Your task to perform on an android device: turn off notifications settings in the gmail app Image 0: 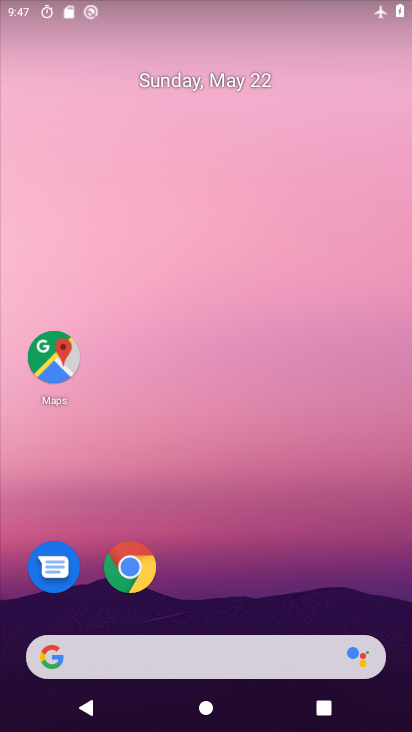
Step 0: drag from (199, 614) to (158, 72)
Your task to perform on an android device: turn off notifications settings in the gmail app Image 1: 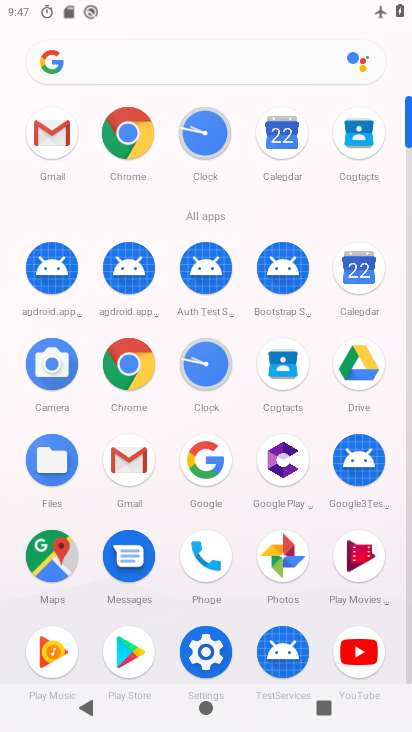
Step 1: click (129, 451)
Your task to perform on an android device: turn off notifications settings in the gmail app Image 2: 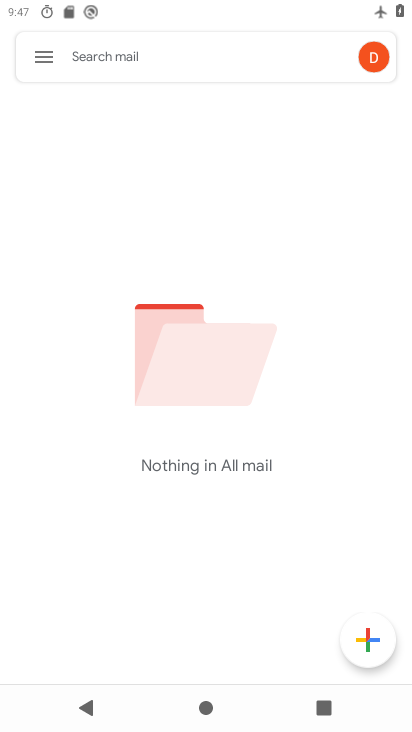
Step 2: click (41, 55)
Your task to perform on an android device: turn off notifications settings in the gmail app Image 3: 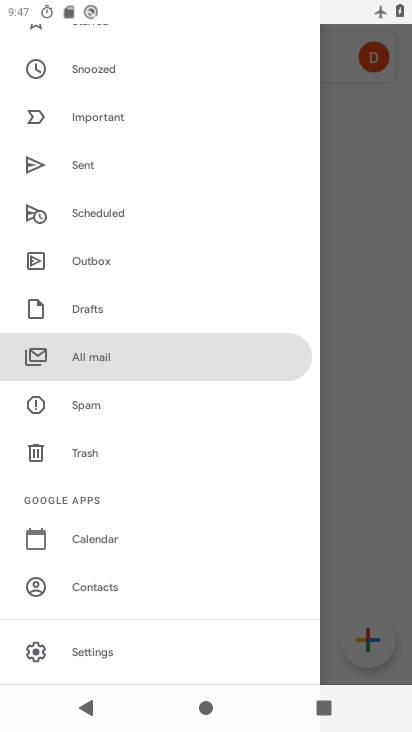
Step 3: click (120, 646)
Your task to perform on an android device: turn off notifications settings in the gmail app Image 4: 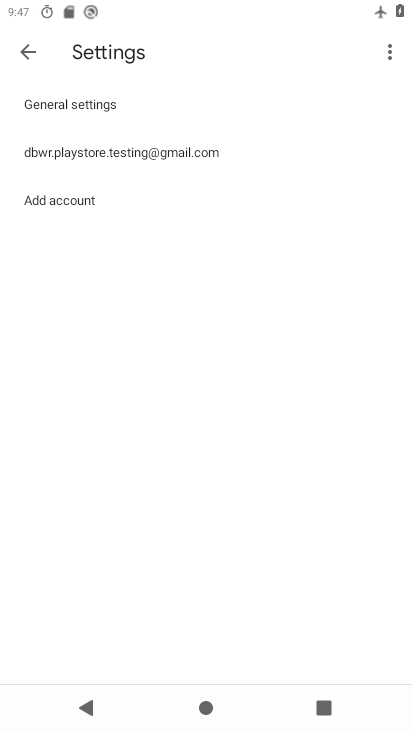
Step 4: click (136, 98)
Your task to perform on an android device: turn off notifications settings in the gmail app Image 5: 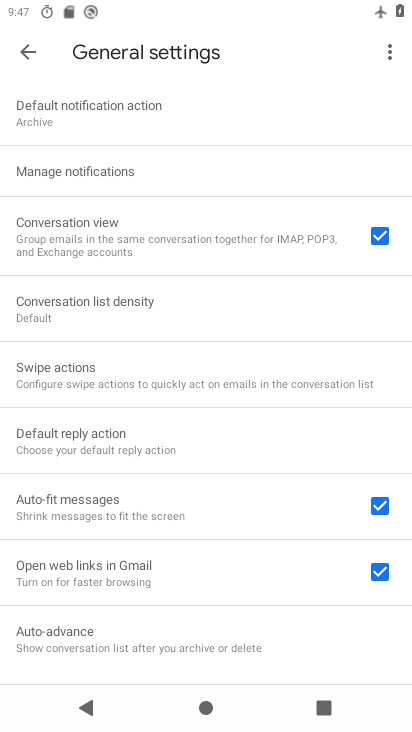
Step 5: click (156, 169)
Your task to perform on an android device: turn off notifications settings in the gmail app Image 6: 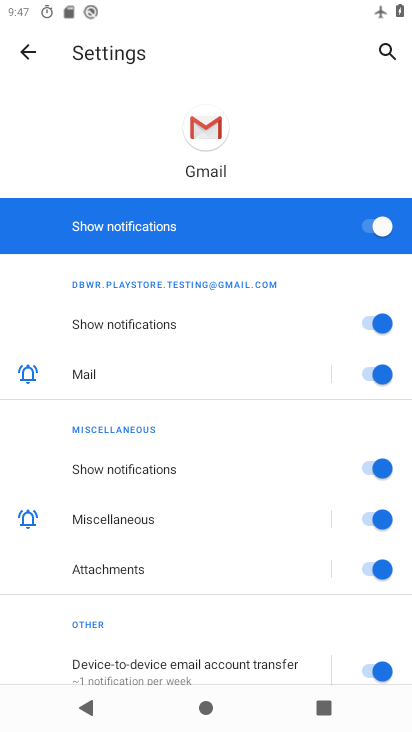
Step 6: click (372, 222)
Your task to perform on an android device: turn off notifications settings in the gmail app Image 7: 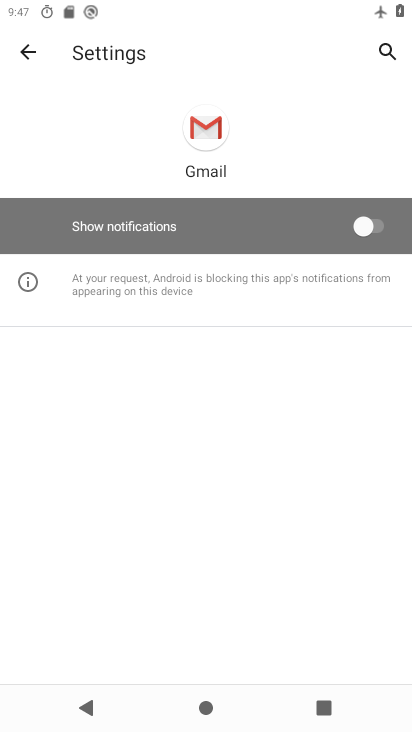
Step 7: task complete